Your task to perform on an android device: move a message to another label in the gmail app Image 0: 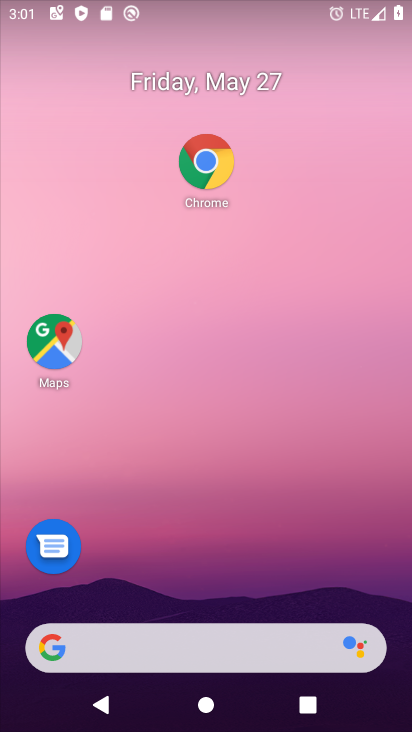
Step 0: drag from (160, 531) to (259, 183)
Your task to perform on an android device: move a message to another label in the gmail app Image 1: 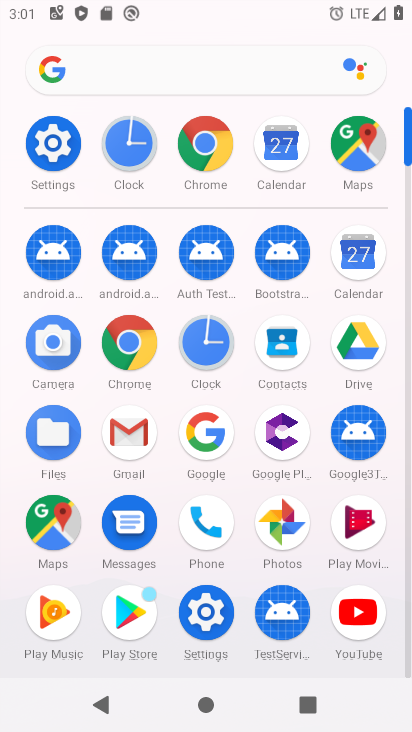
Step 1: click (126, 449)
Your task to perform on an android device: move a message to another label in the gmail app Image 2: 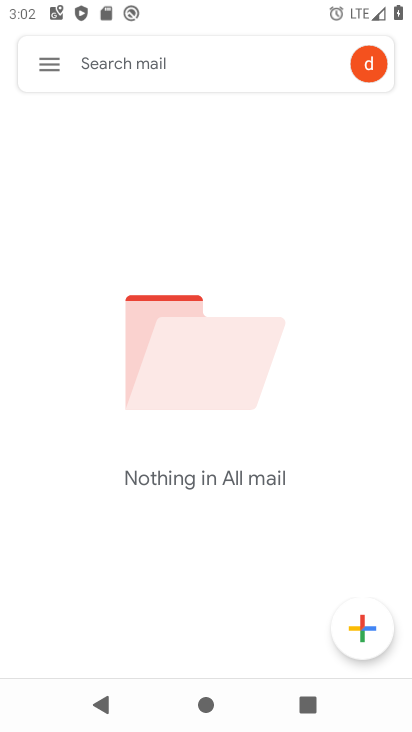
Step 2: click (53, 61)
Your task to perform on an android device: move a message to another label in the gmail app Image 3: 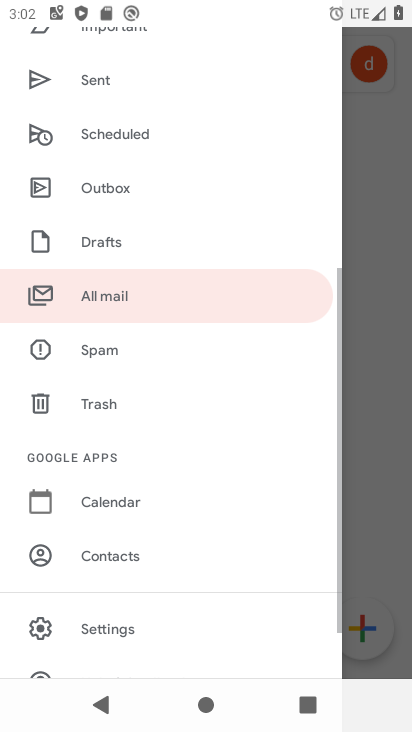
Step 3: drag from (148, 493) to (218, 98)
Your task to perform on an android device: move a message to another label in the gmail app Image 4: 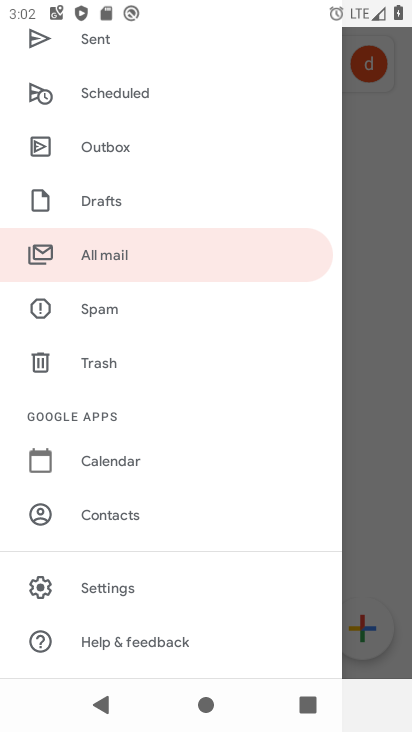
Step 4: click (117, 248)
Your task to perform on an android device: move a message to another label in the gmail app Image 5: 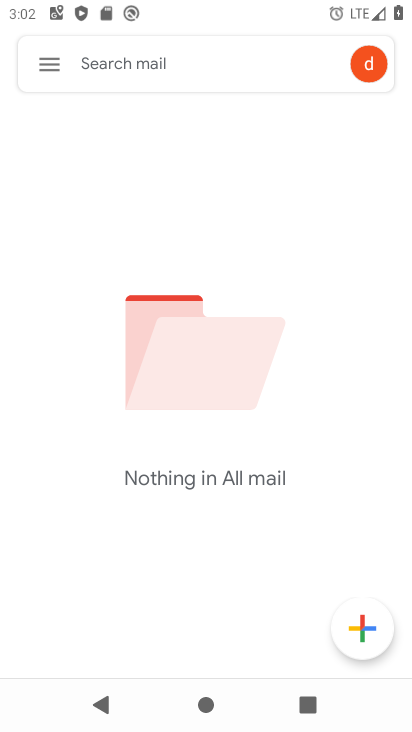
Step 5: task complete